Your task to perform on an android device: Search for a new water heater on Home Depot Image 0: 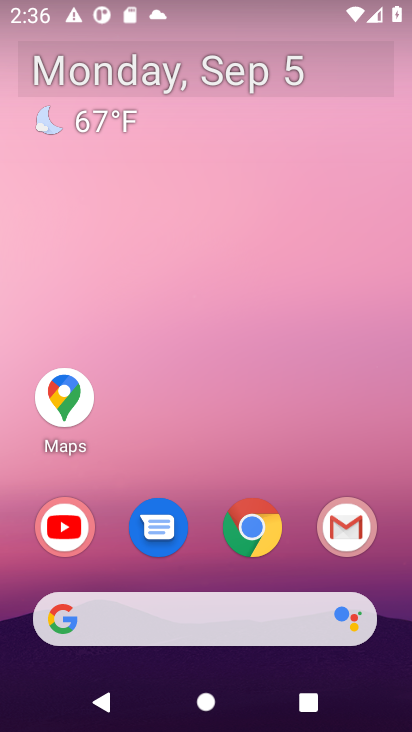
Step 0: click (256, 528)
Your task to perform on an android device: Search for a new water heater on Home Depot Image 1: 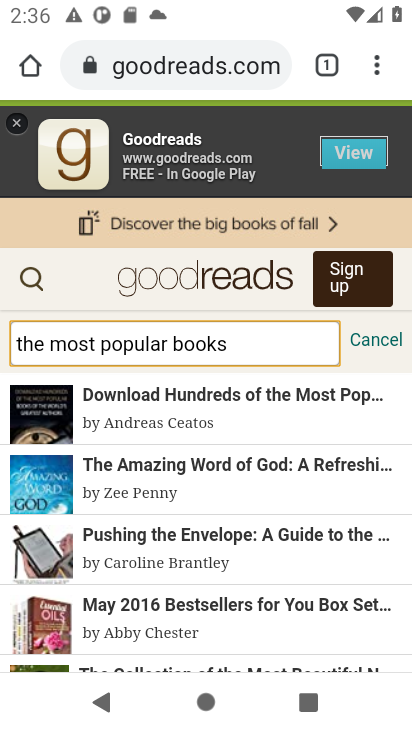
Step 1: click (153, 58)
Your task to perform on an android device: Search for a new water heater on Home Depot Image 2: 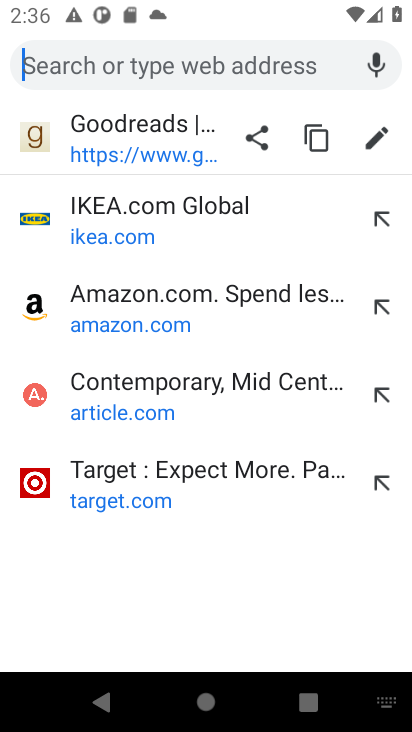
Step 2: type "home depot"
Your task to perform on an android device: Search for a new water heater on Home Depot Image 3: 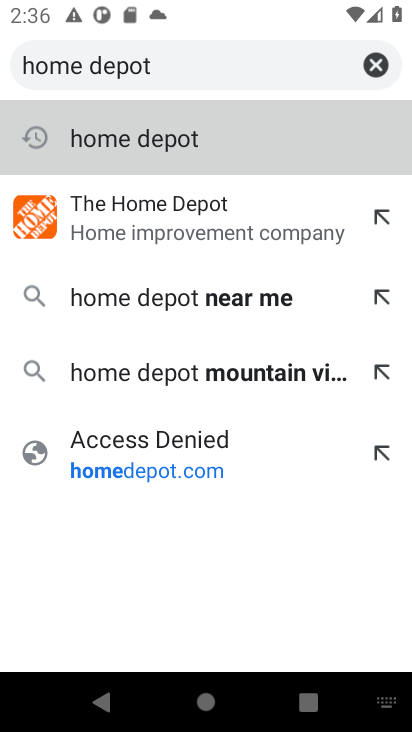
Step 3: click (152, 221)
Your task to perform on an android device: Search for a new water heater on Home Depot Image 4: 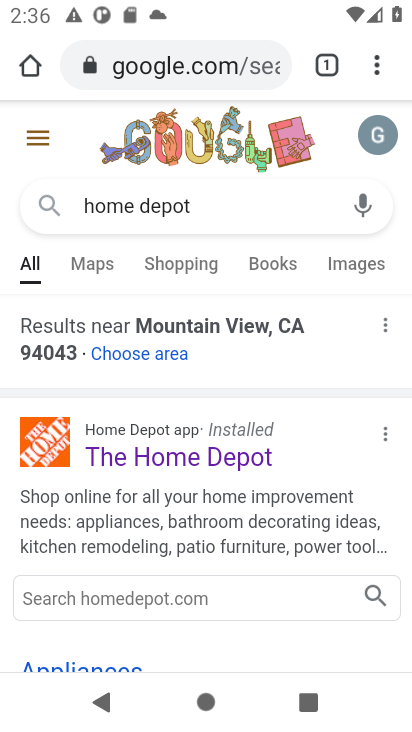
Step 4: click (144, 488)
Your task to perform on an android device: Search for a new water heater on Home Depot Image 5: 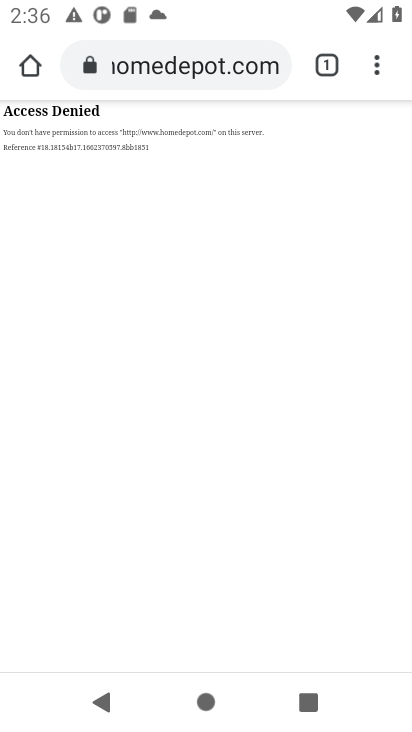
Step 5: task complete